Your task to perform on an android device: Open Google Chrome Image 0: 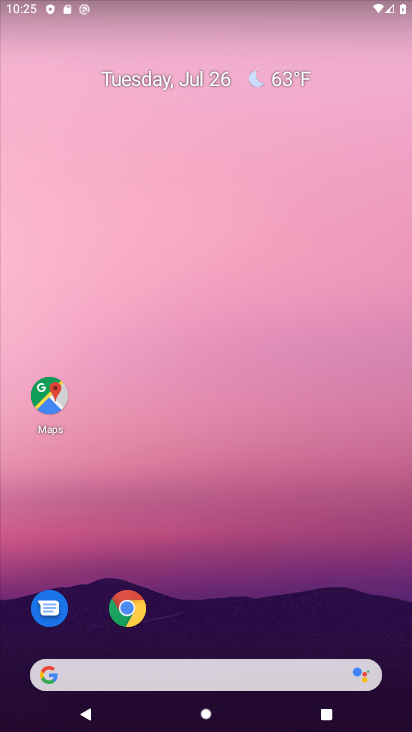
Step 0: press home button
Your task to perform on an android device: Open Google Chrome Image 1: 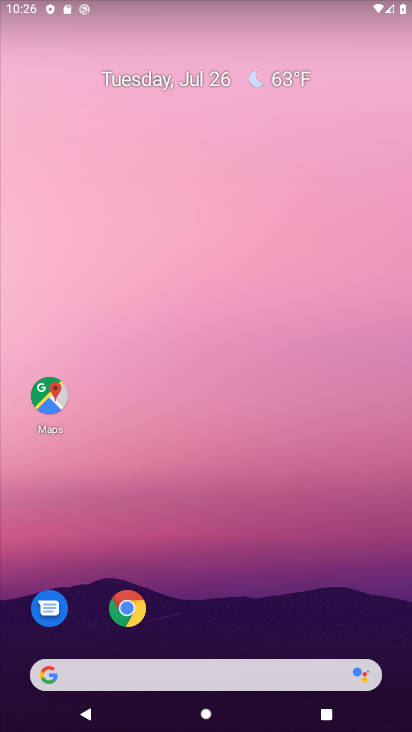
Step 1: drag from (254, 495) to (252, 79)
Your task to perform on an android device: Open Google Chrome Image 2: 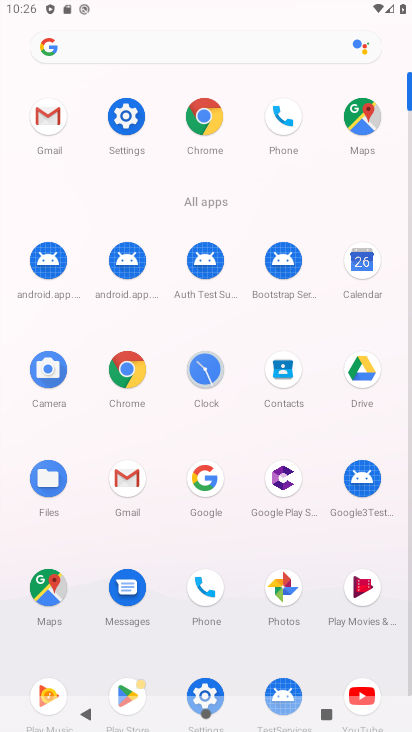
Step 2: click (202, 120)
Your task to perform on an android device: Open Google Chrome Image 3: 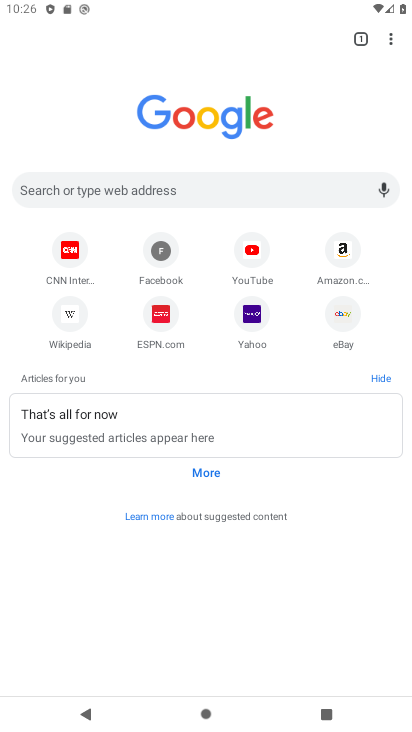
Step 3: task complete